Your task to perform on an android device: Go to eBay Image 0: 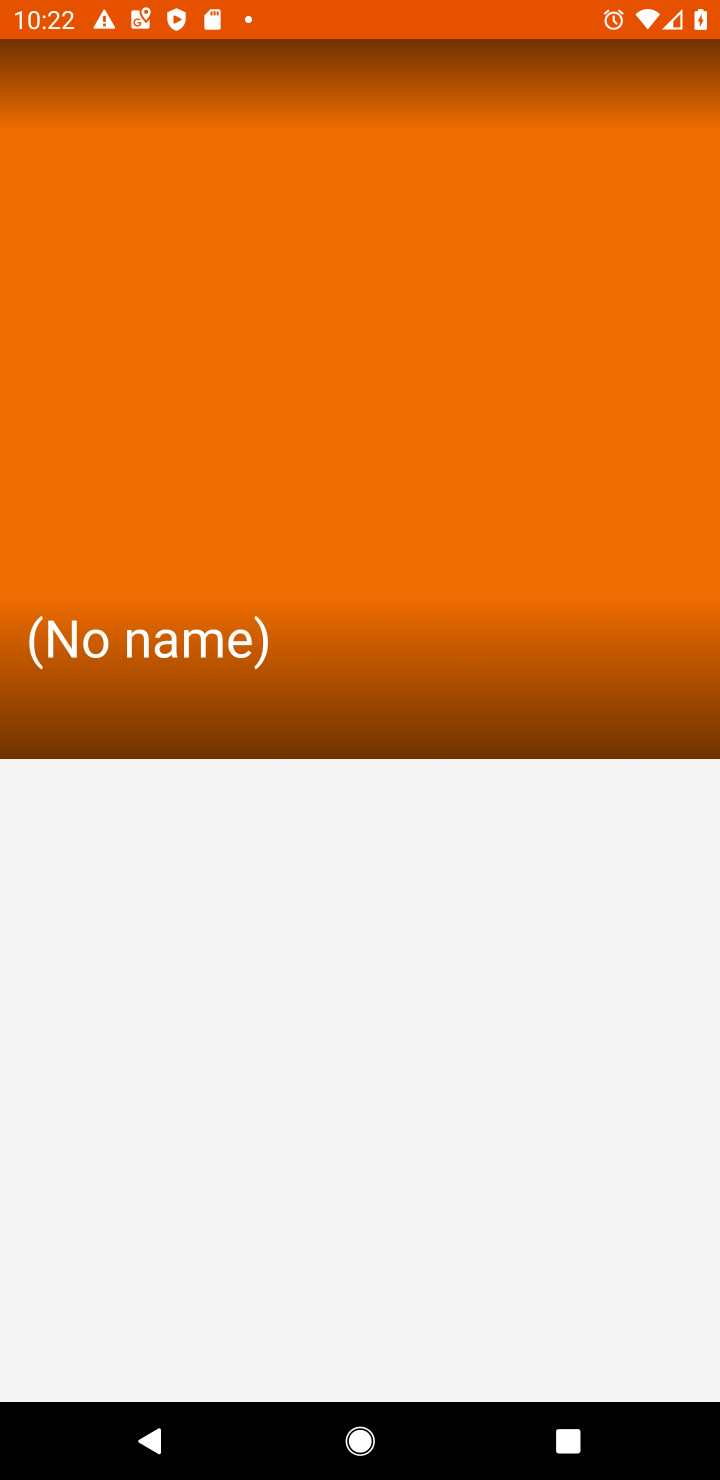
Step 0: press home button
Your task to perform on an android device: Go to eBay Image 1: 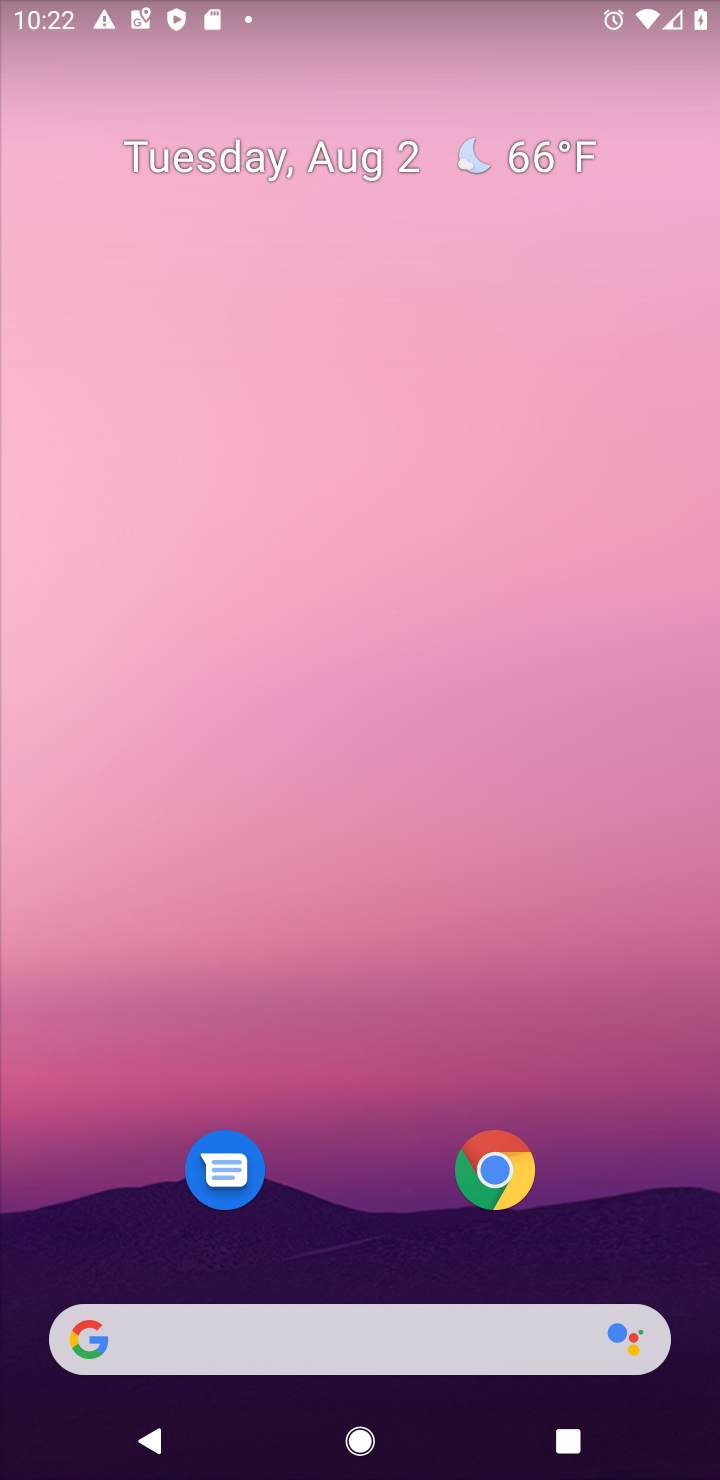
Step 1: click (492, 1171)
Your task to perform on an android device: Go to eBay Image 2: 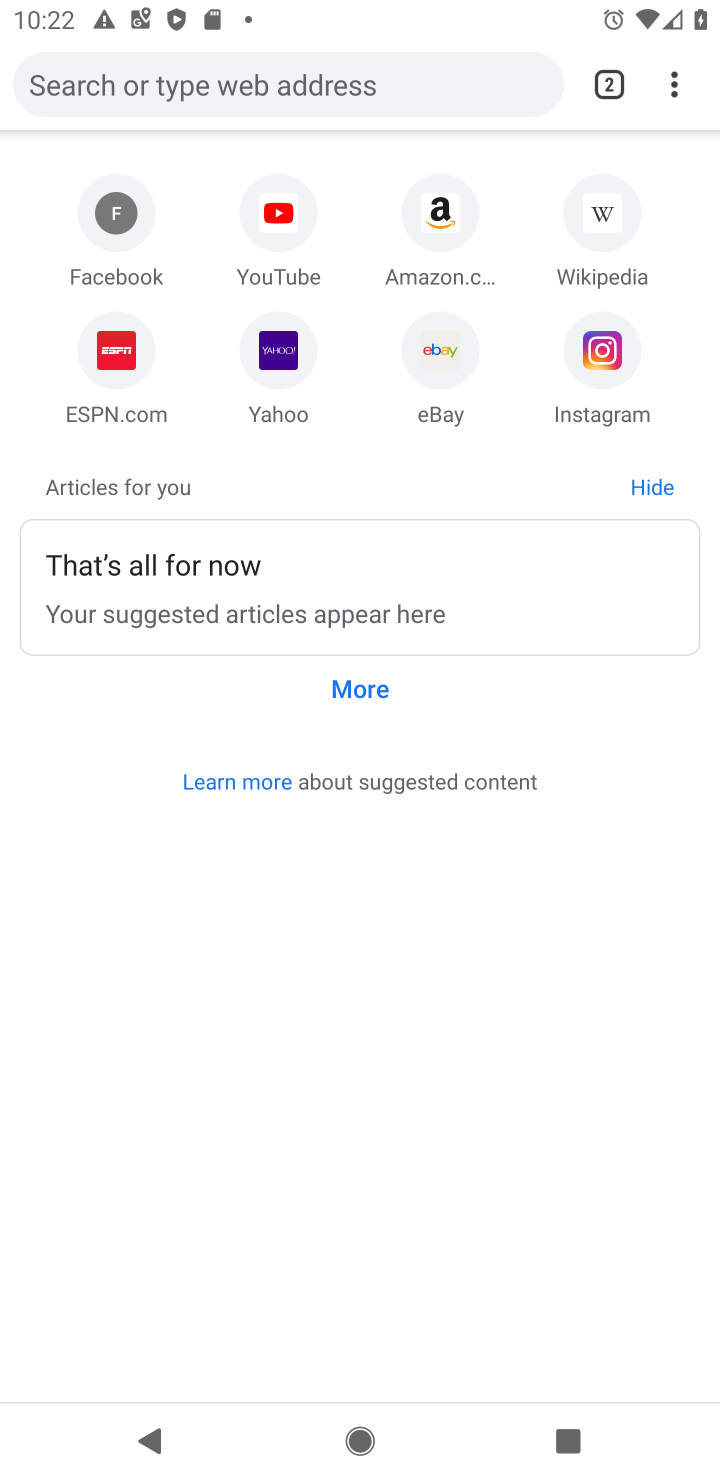
Step 2: click (424, 363)
Your task to perform on an android device: Go to eBay Image 3: 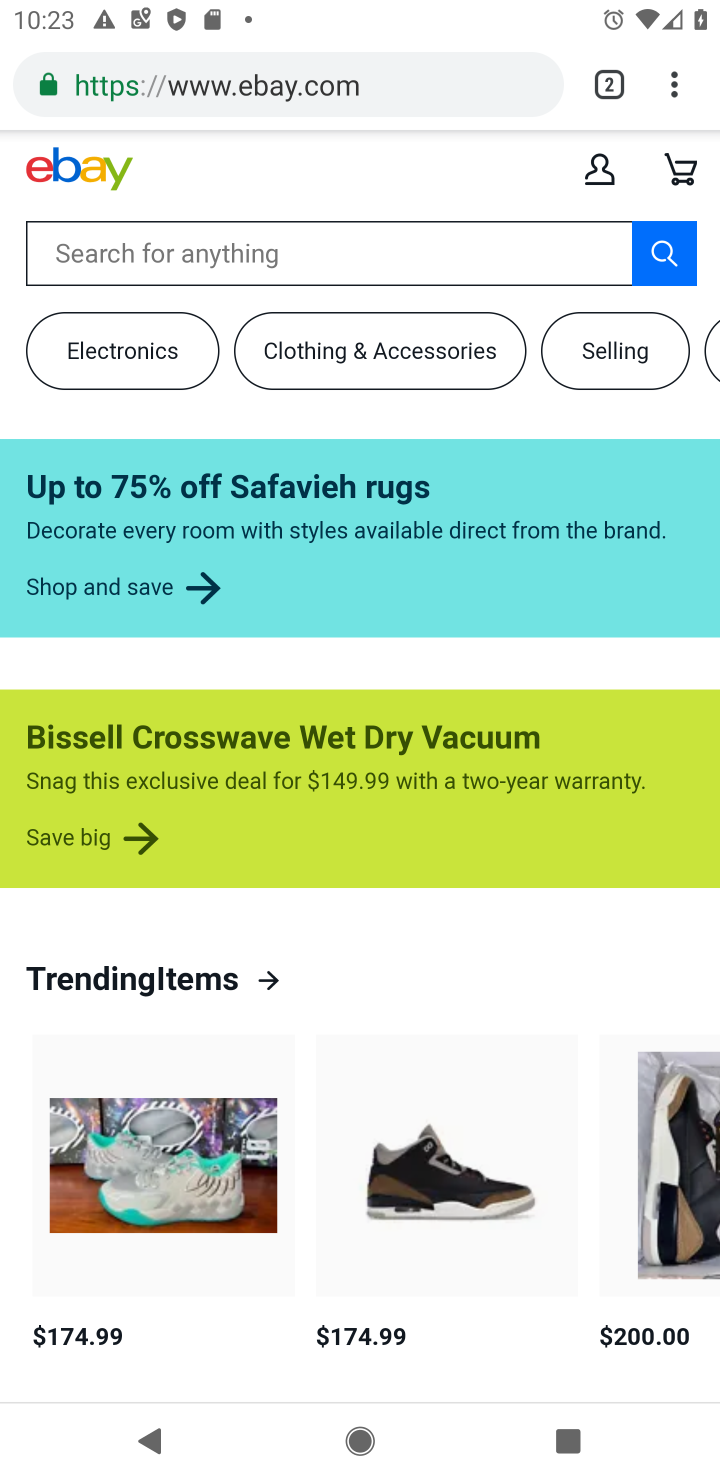
Step 3: task complete